Your task to perform on an android device: Go to calendar. Show me events next week Image 0: 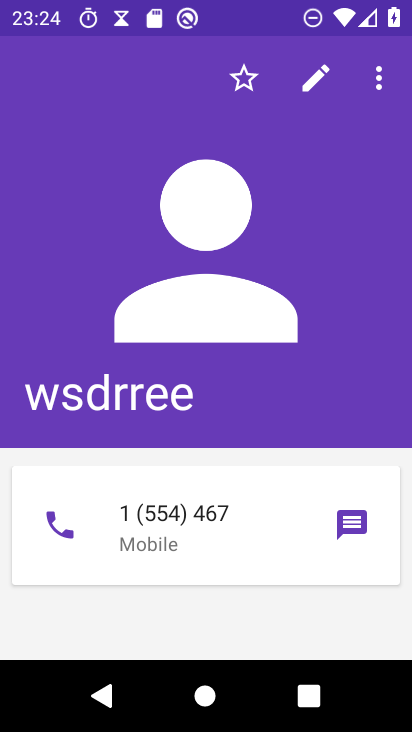
Step 0: press home button
Your task to perform on an android device: Go to calendar. Show me events next week Image 1: 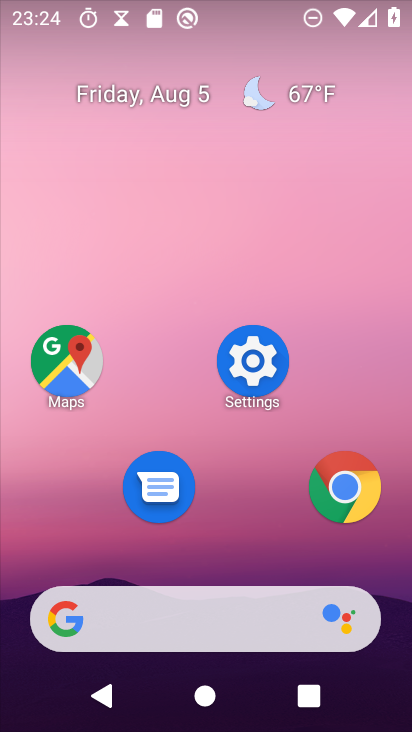
Step 1: drag from (170, 610) to (305, 104)
Your task to perform on an android device: Go to calendar. Show me events next week Image 2: 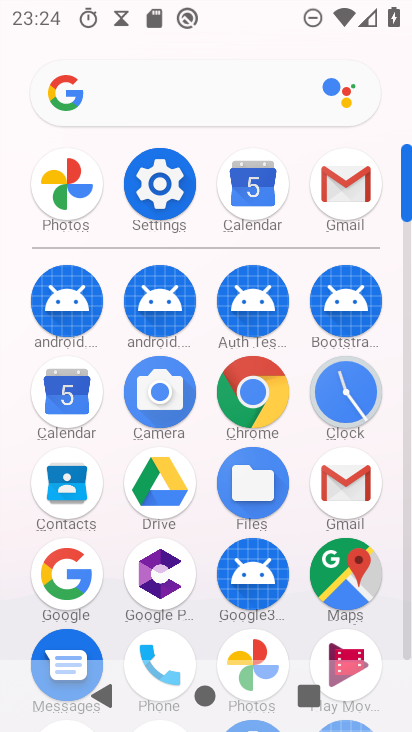
Step 2: click (65, 389)
Your task to perform on an android device: Go to calendar. Show me events next week Image 3: 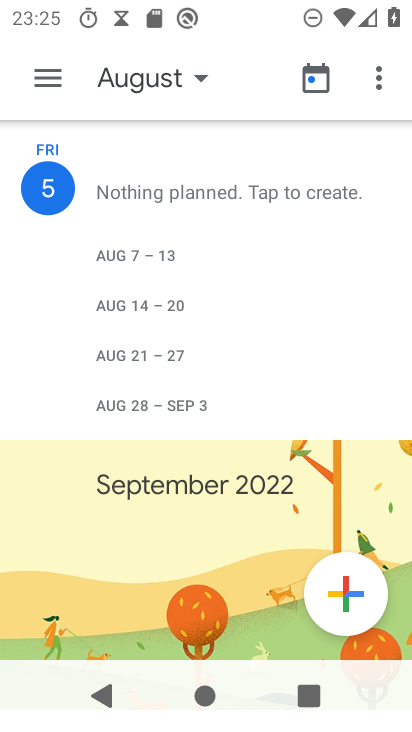
Step 3: click (136, 79)
Your task to perform on an android device: Go to calendar. Show me events next week Image 4: 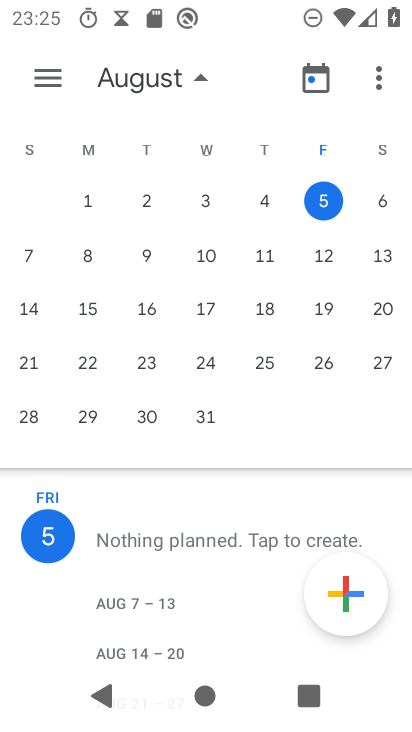
Step 4: drag from (368, 309) to (209, 286)
Your task to perform on an android device: Go to calendar. Show me events next week Image 5: 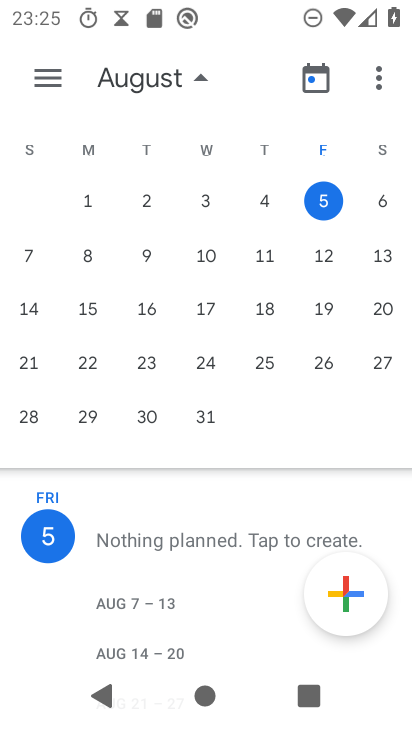
Step 5: click (21, 261)
Your task to perform on an android device: Go to calendar. Show me events next week Image 6: 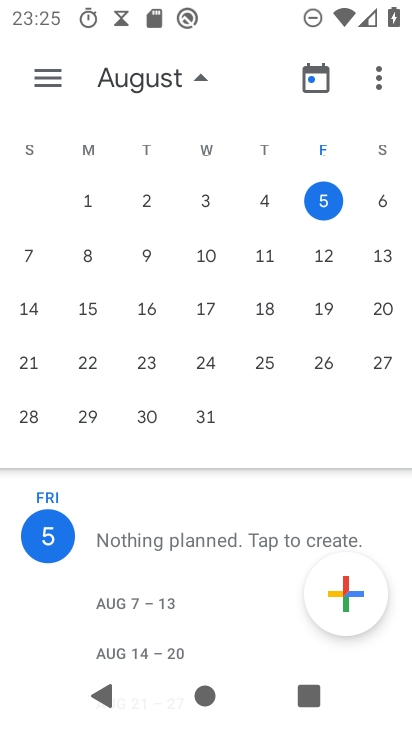
Step 6: click (44, 252)
Your task to perform on an android device: Go to calendar. Show me events next week Image 7: 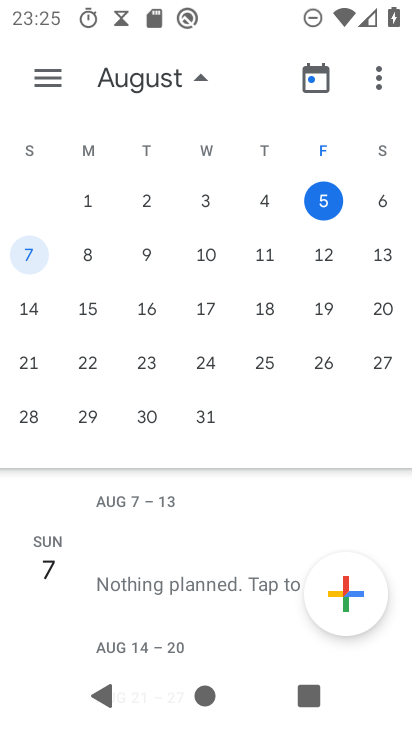
Step 7: click (43, 78)
Your task to perform on an android device: Go to calendar. Show me events next week Image 8: 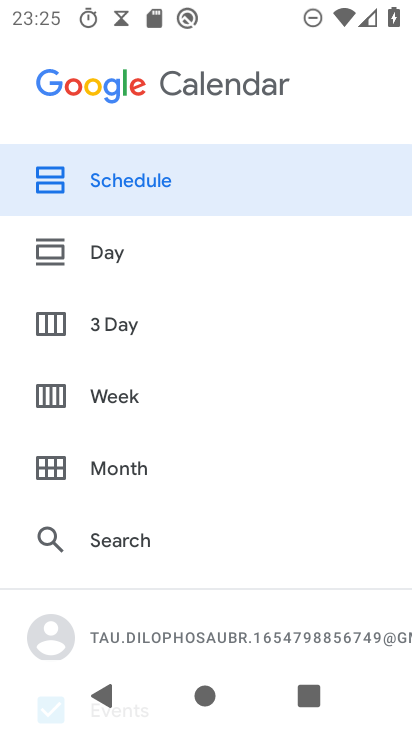
Step 8: click (131, 387)
Your task to perform on an android device: Go to calendar. Show me events next week Image 9: 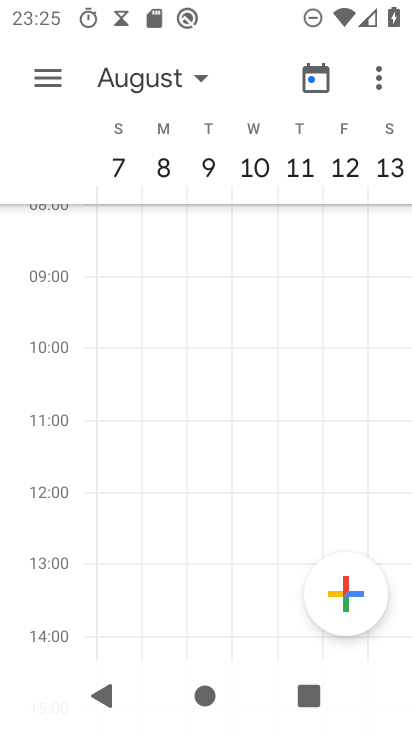
Step 9: click (42, 75)
Your task to perform on an android device: Go to calendar. Show me events next week Image 10: 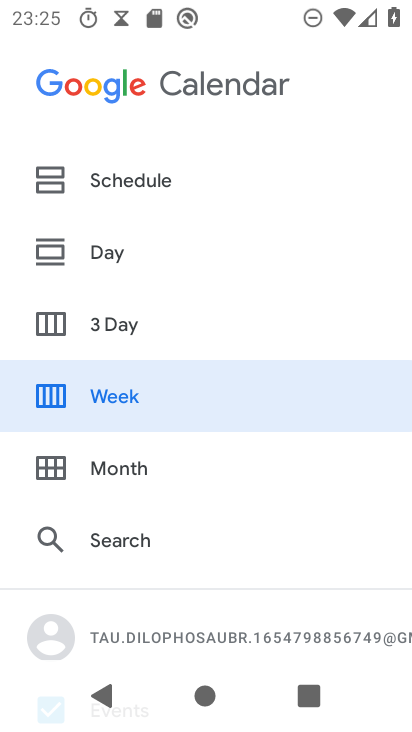
Step 10: click (113, 192)
Your task to perform on an android device: Go to calendar. Show me events next week Image 11: 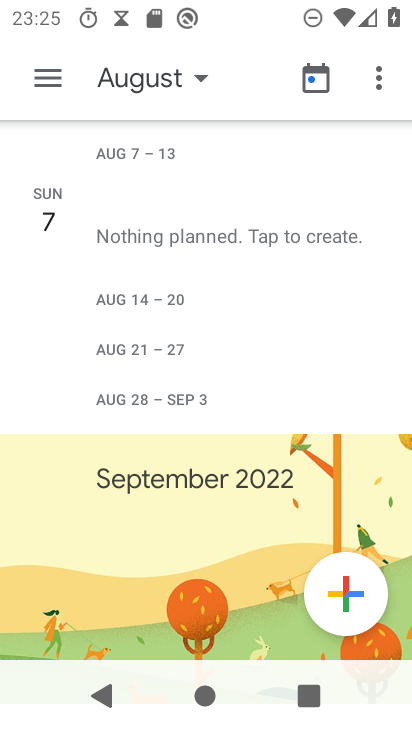
Step 11: task complete